Your task to perform on an android device: Search for pizza restaurants on Maps Image 0: 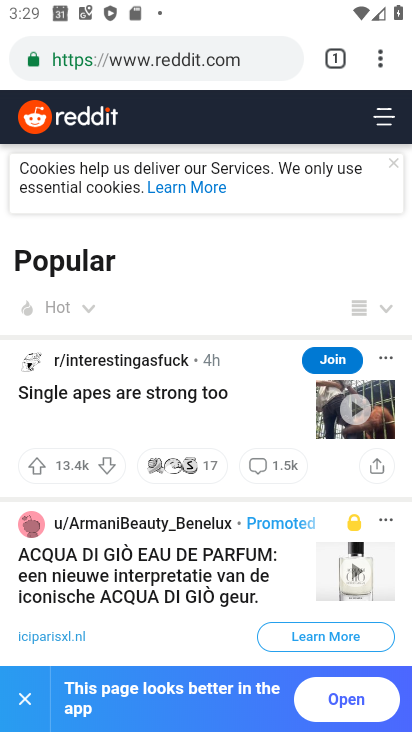
Step 0: press home button
Your task to perform on an android device: Search for pizza restaurants on Maps Image 1: 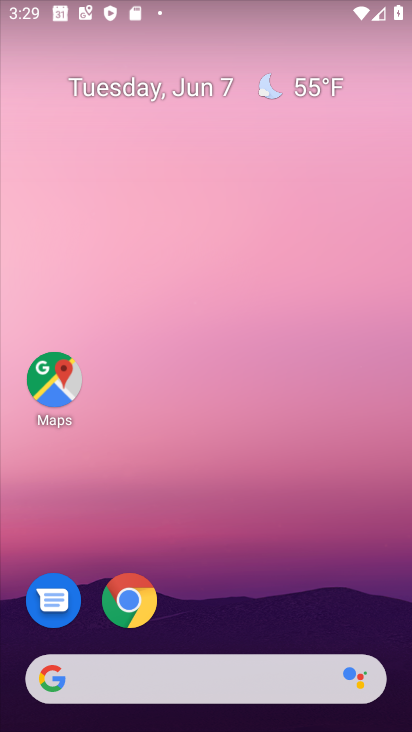
Step 1: drag from (225, 611) to (223, 65)
Your task to perform on an android device: Search for pizza restaurants on Maps Image 2: 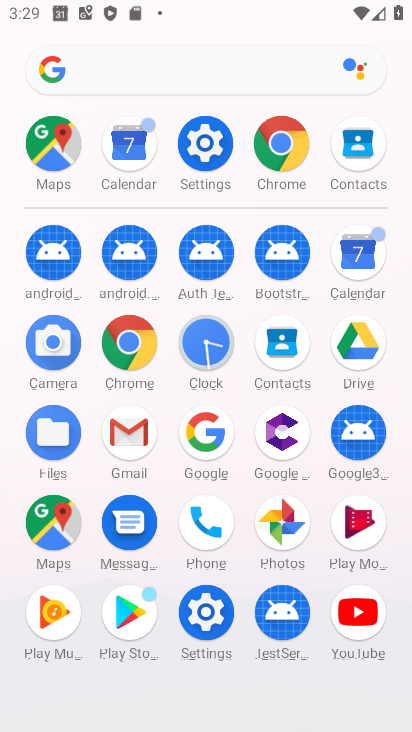
Step 2: click (57, 155)
Your task to perform on an android device: Search for pizza restaurants on Maps Image 3: 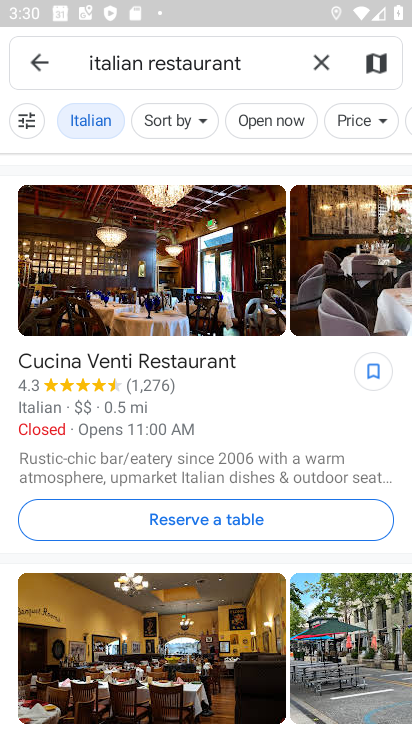
Step 3: click (316, 60)
Your task to perform on an android device: Search for pizza restaurants on Maps Image 4: 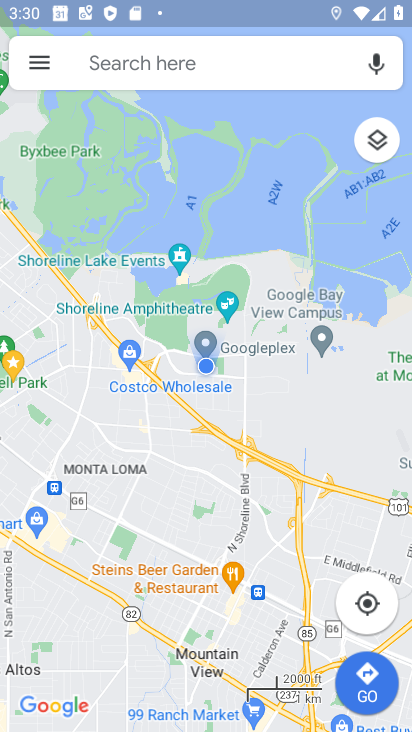
Step 4: click (182, 78)
Your task to perform on an android device: Search for pizza restaurants on Maps Image 5: 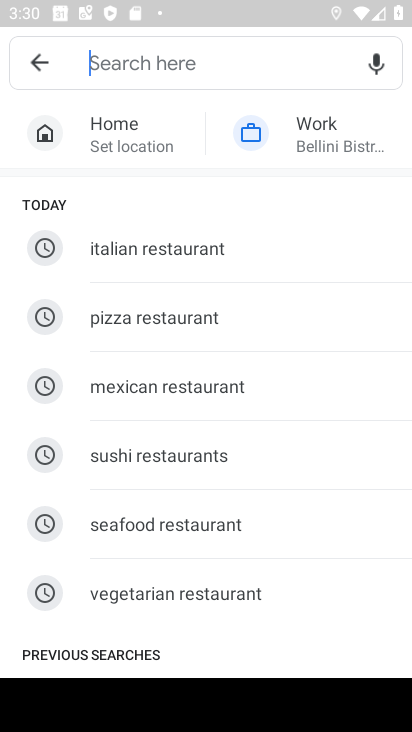
Step 5: click (138, 324)
Your task to perform on an android device: Search for pizza restaurants on Maps Image 6: 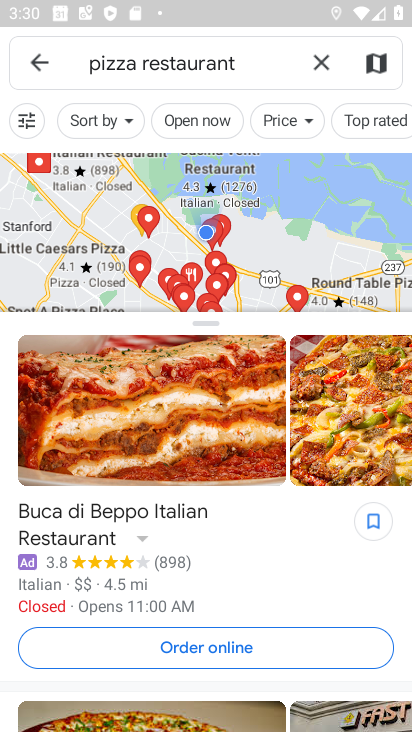
Step 6: task complete